Your task to perform on an android device: change the clock display to show seconds Image 0: 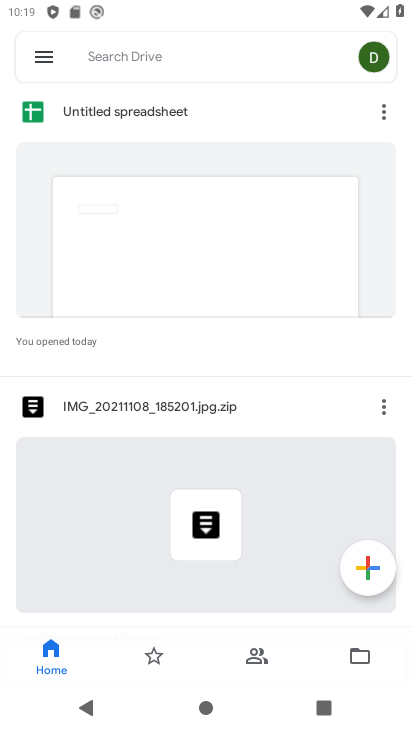
Step 0: press home button
Your task to perform on an android device: change the clock display to show seconds Image 1: 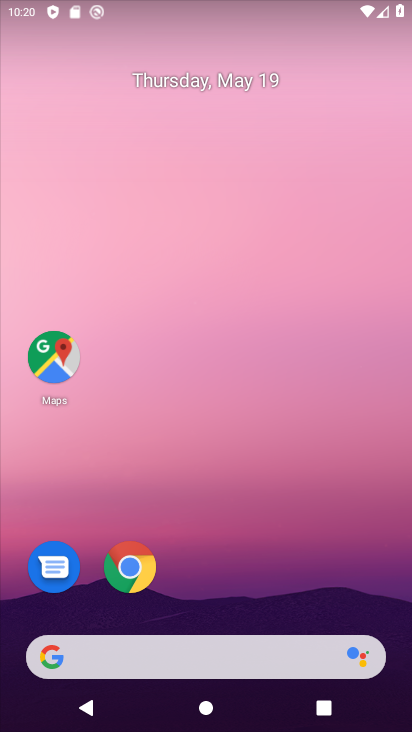
Step 1: drag from (386, 617) to (215, 1)
Your task to perform on an android device: change the clock display to show seconds Image 2: 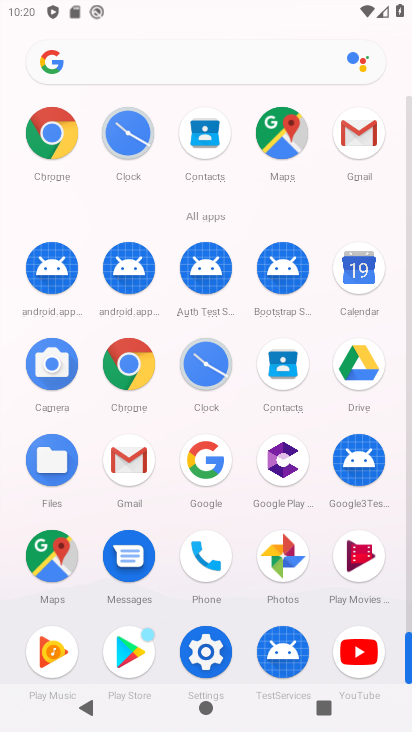
Step 2: click (215, 1)
Your task to perform on an android device: change the clock display to show seconds Image 3: 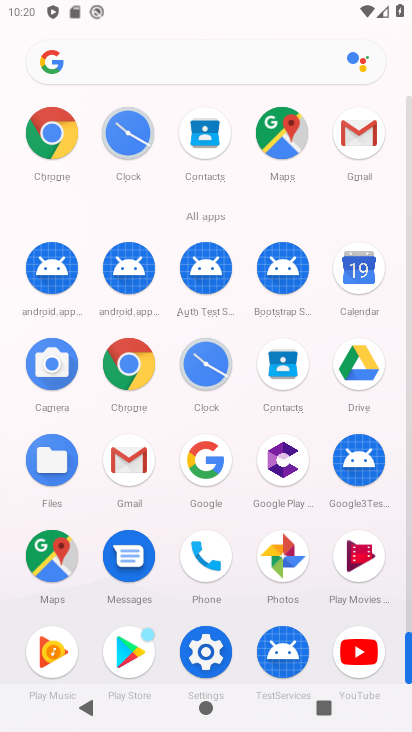
Step 3: click (202, 364)
Your task to perform on an android device: change the clock display to show seconds Image 4: 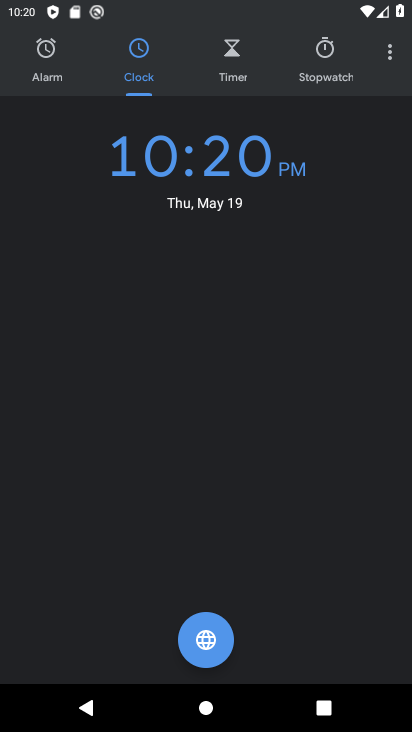
Step 4: click (392, 55)
Your task to perform on an android device: change the clock display to show seconds Image 5: 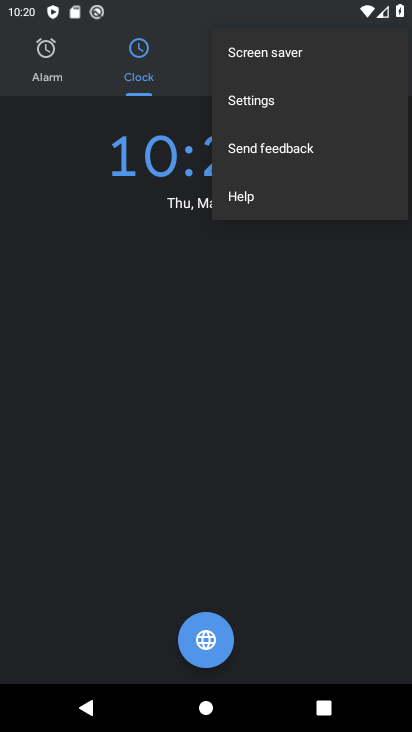
Step 5: click (248, 99)
Your task to perform on an android device: change the clock display to show seconds Image 6: 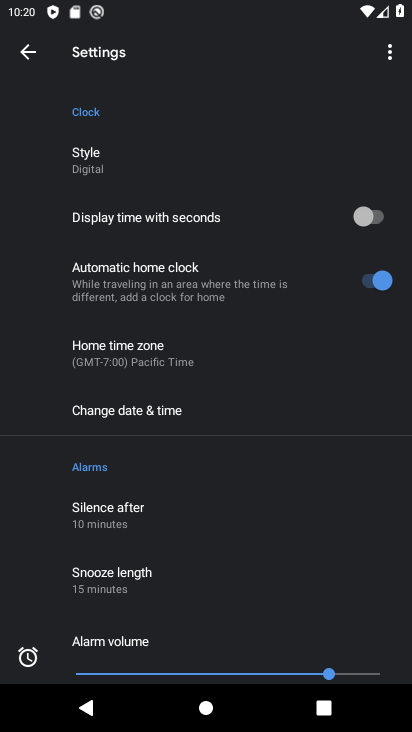
Step 6: click (380, 217)
Your task to perform on an android device: change the clock display to show seconds Image 7: 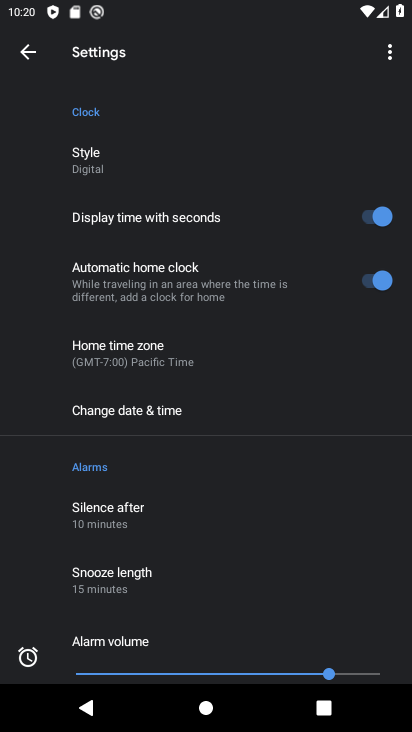
Step 7: task complete